Your task to perform on an android device: turn off improve location accuracy Image 0: 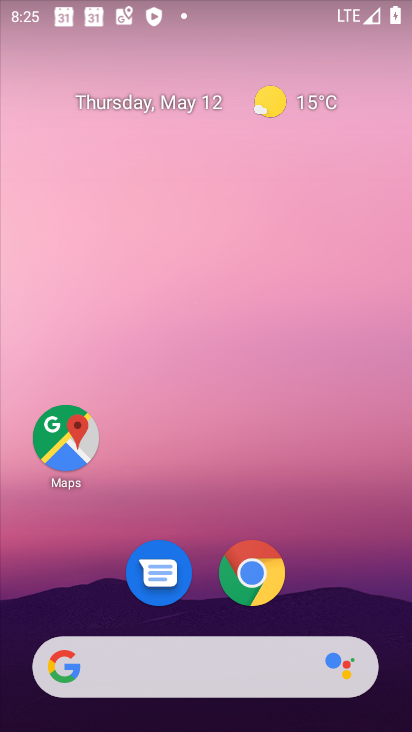
Step 0: drag from (358, 547) to (263, 102)
Your task to perform on an android device: turn off improve location accuracy Image 1: 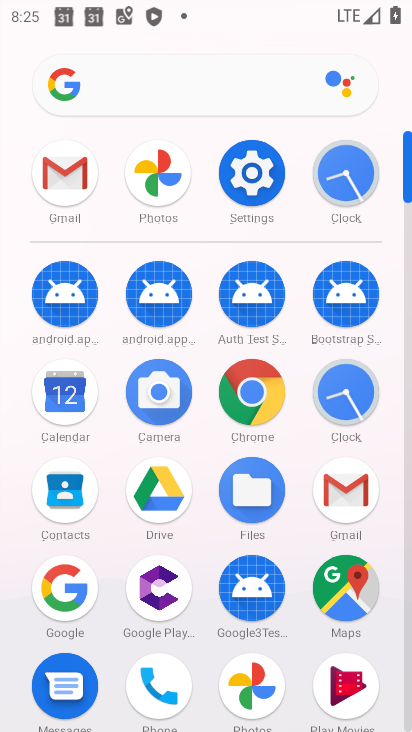
Step 1: click (255, 172)
Your task to perform on an android device: turn off improve location accuracy Image 2: 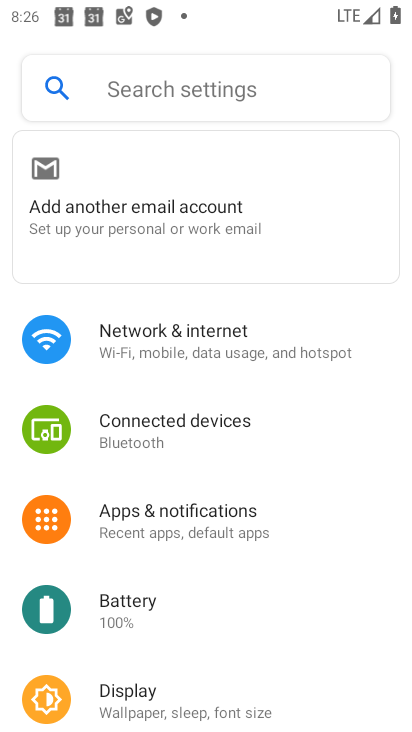
Step 2: drag from (192, 571) to (168, 371)
Your task to perform on an android device: turn off improve location accuracy Image 3: 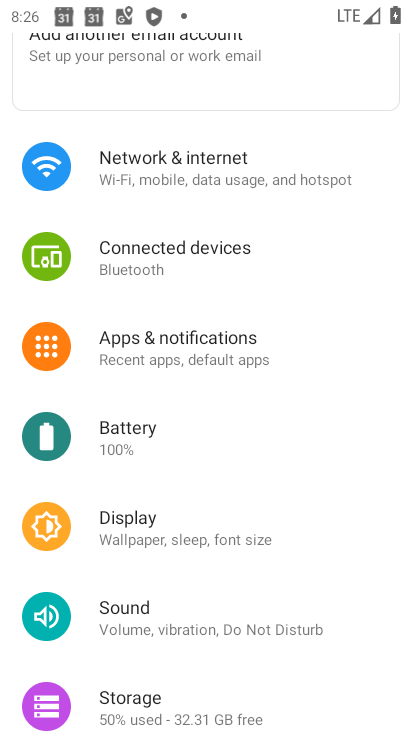
Step 3: drag from (160, 574) to (127, 359)
Your task to perform on an android device: turn off improve location accuracy Image 4: 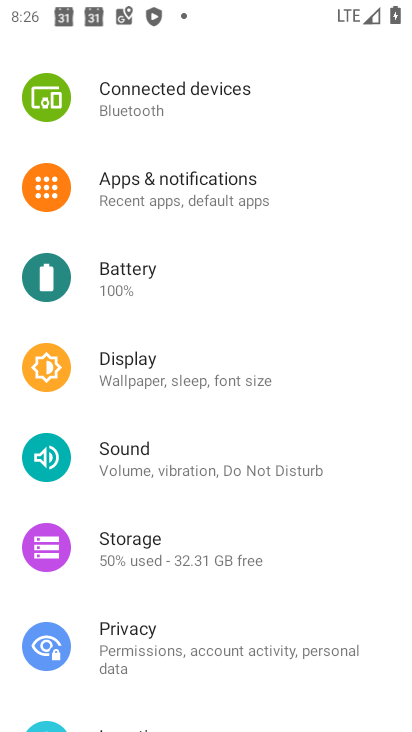
Step 4: drag from (152, 593) to (121, 337)
Your task to perform on an android device: turn off improve location accuracy Image 5: 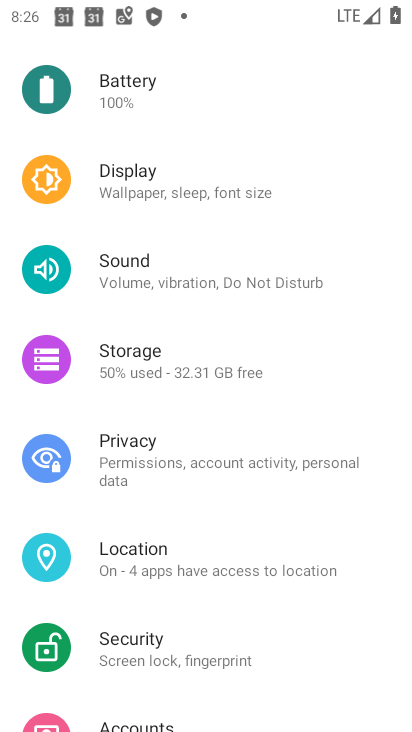
Step 5: drag from (189, 597) to (160, 331)
Your task to perform on an android device: turn off improve location accuracy Image 6: 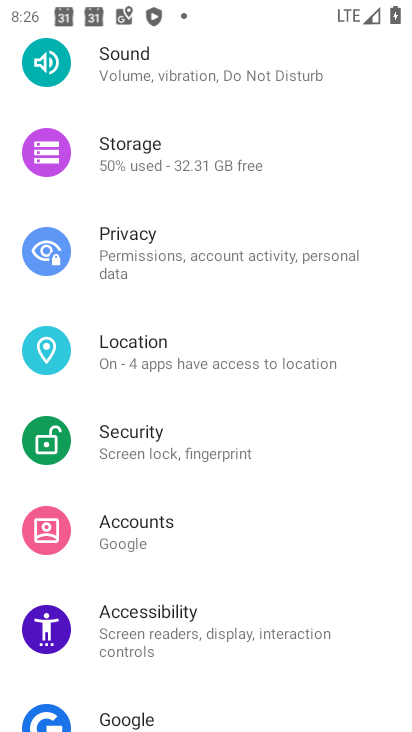
Step 6: drag from (163, 560) to (122, 307)
Your task to perform on an android device: turn off improve location accuracy Image 7: 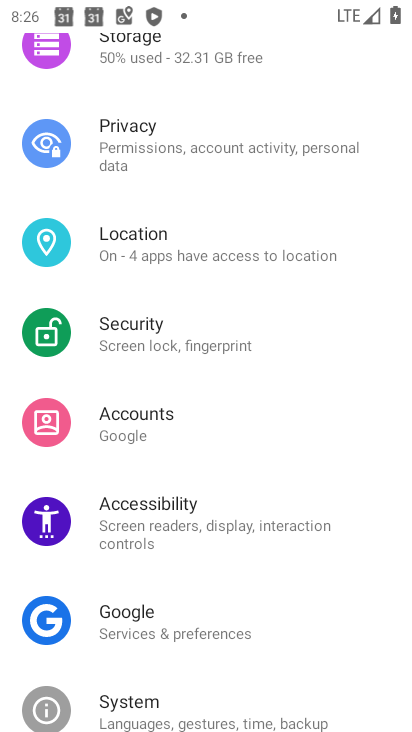
Step 7: click (137, 227)
Your task to perform on an android device: turn off improve location accuracy Image 8: 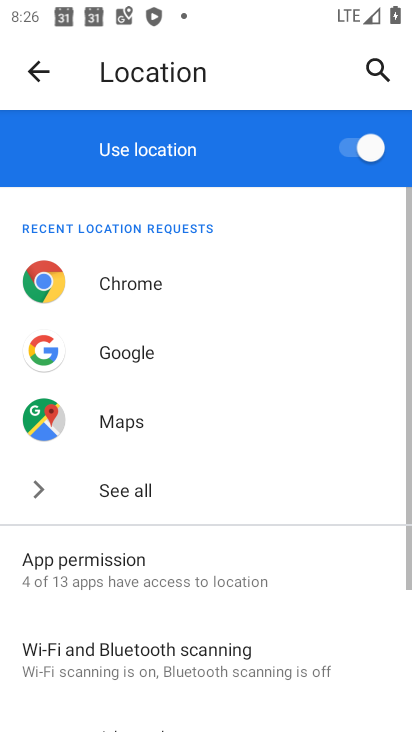
Step 8: drag from (154, 566) to (104, 340)
Your task to perform on an android device: turn off improve location accuracy Image 9: 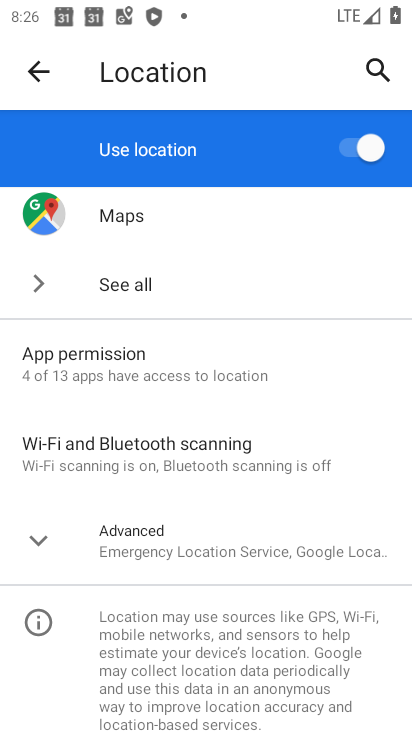
Step 9: click (39, 540)
Your task to perform on an android device: turn off improve location accuracy Image 10: 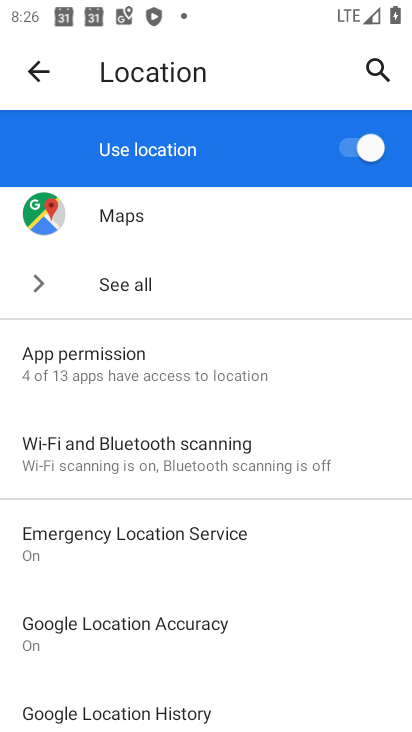
Step 10: drag from (226, 586) to (203, 406)
Your task to perform on an android device: turn off improve location accuracy Image 11: 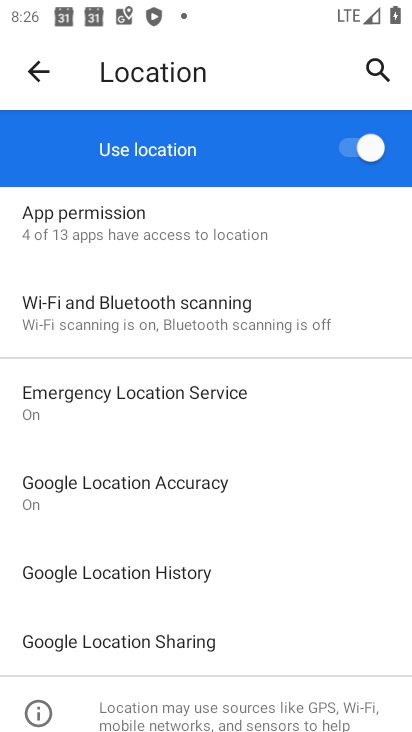
Step 11: click (151, 483)
Your task to perform on an android device: turn off improve location accuracy Image 12: 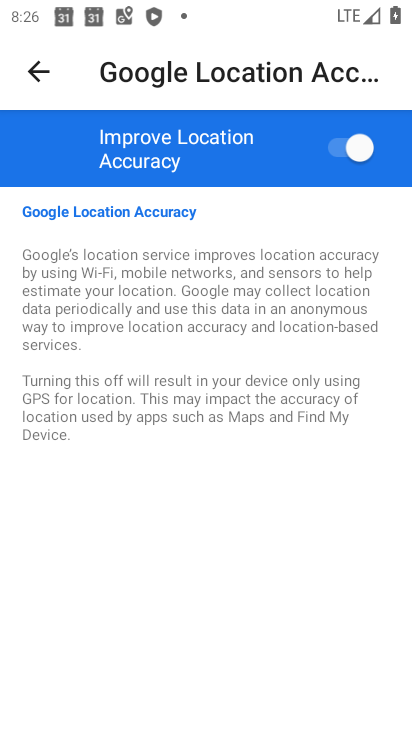
Step 12: click (355, 151)
Your task to perform on an android device: turn off improve location accuracy Image 13: 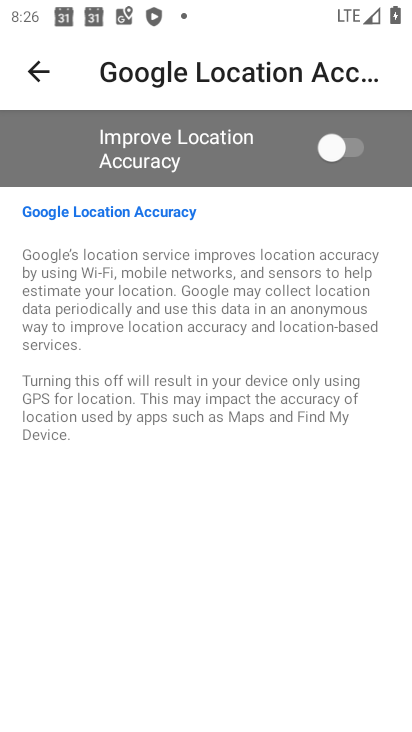
Step 13: task complete